Your task to perform on an android device: toggle airplane mode Image 0: 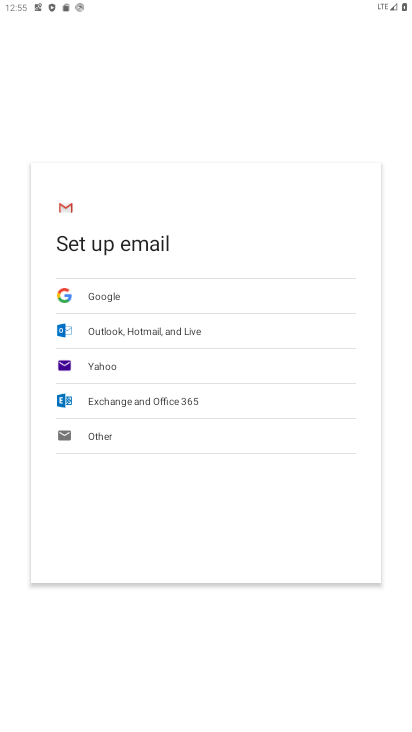
Step 0: press home button
Your task to perform on an android device: toggle airplane mode Image 1: 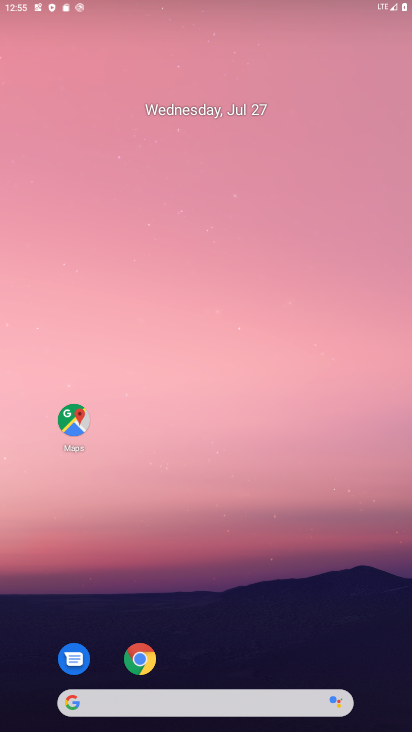
Step 1: drag from (156, 610) to (215, 121)
Your task to perform on an android device: toggle airplane mode Image 2: 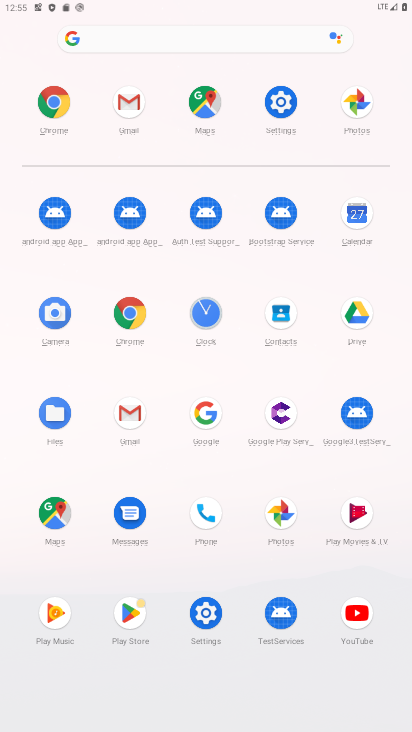
Step 2: click (280, 115)
Your task to perform on an android device: toggle airplane mode Image 3: 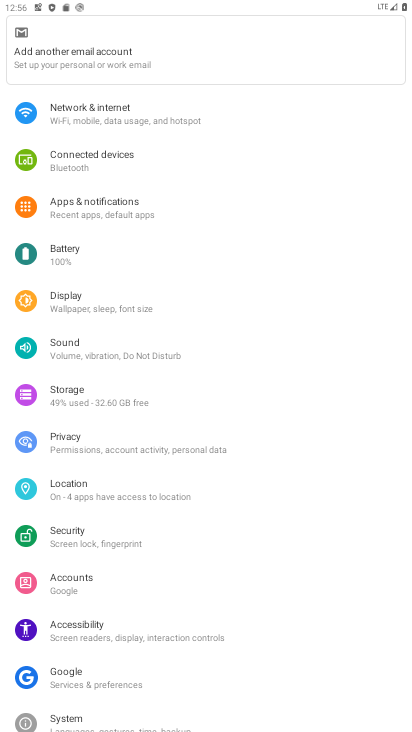
Step 3: click (104, 122)
Your task to perform on an android device: toggle airplane mode Image 4: 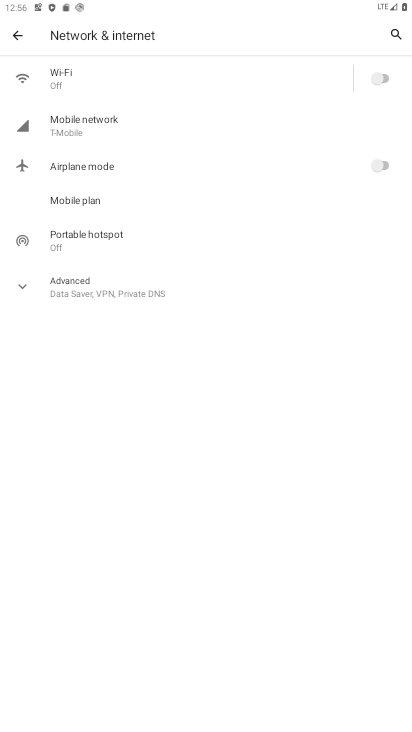
Step 4: click (379, 163)
Your task to perform on an android device: toggle airplane mode Image 5: 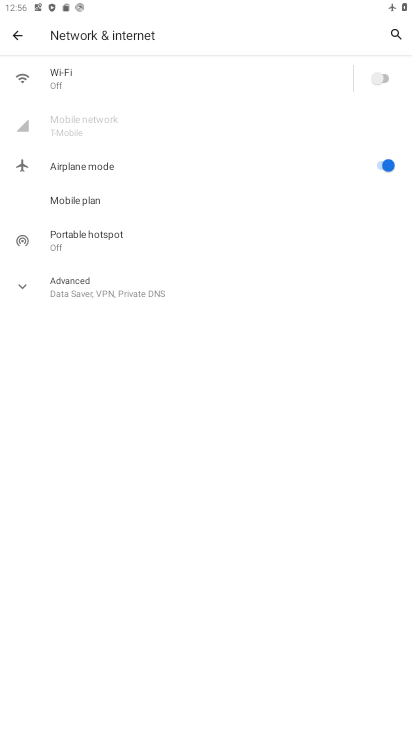
Step 5: task complete